Your task to perform on an android device: Show me recent news Image 0: 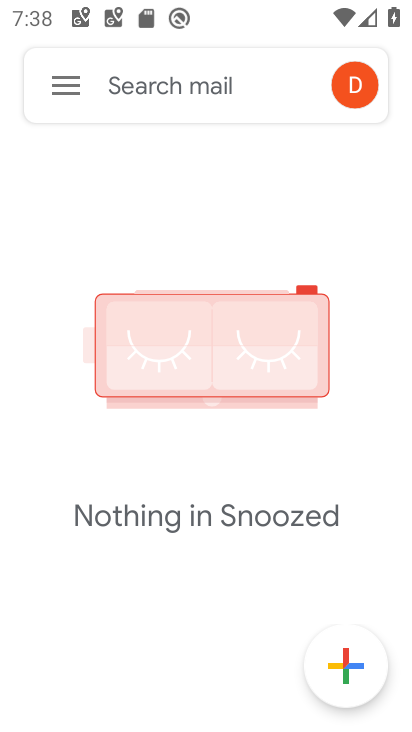
Step 0: press home button
Your task to perform on an android device: Show me recent news Image 1: 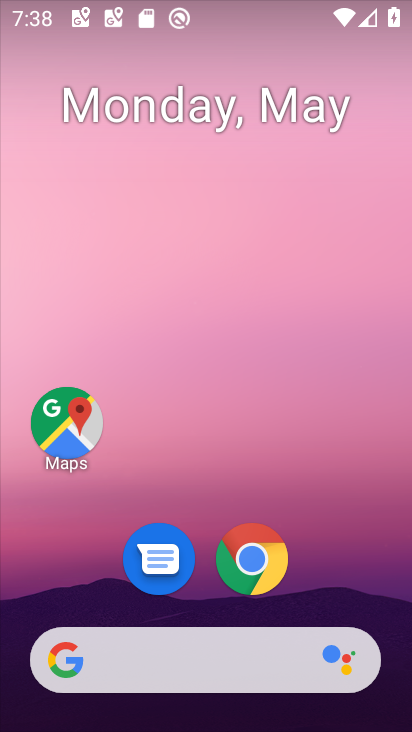
Step 1: click (261, 591)
Your task to perform on an android device: Show me recent news Image 2: 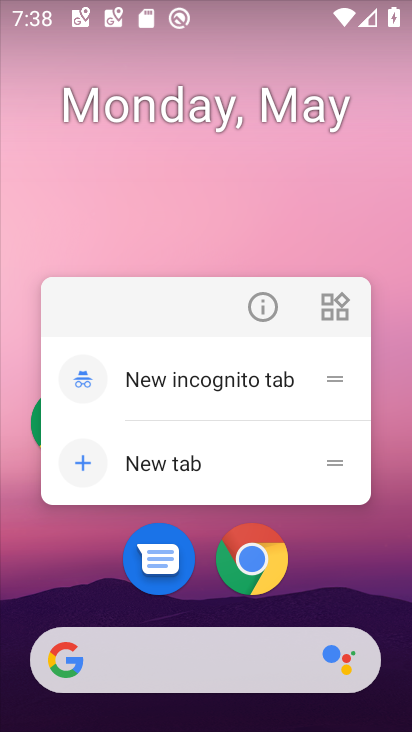
Step 2: click (261, 591)
Your task to perform on an android device: Show me recent news Image 3: 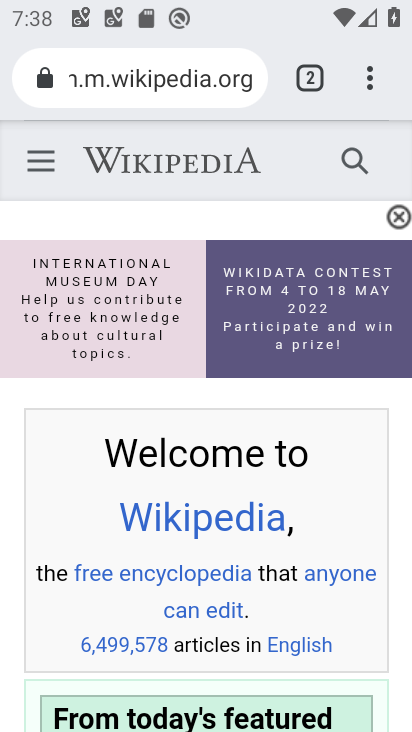
Step 3: press back button
Your task to perform on an android device: Show me recent news Image 4: 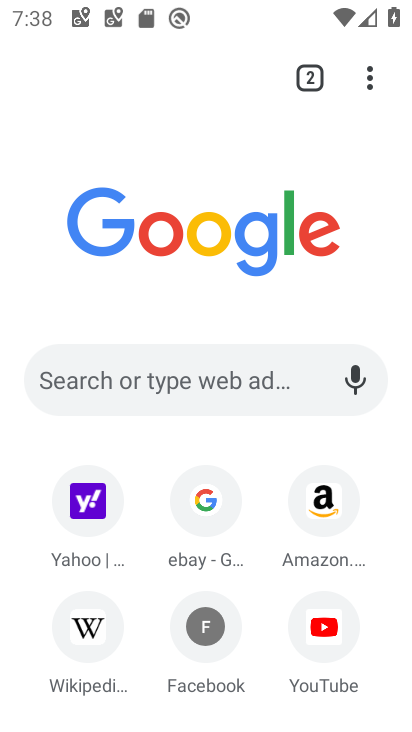
Step 4: drag from (267, 670) to (304, 219)
Your task to perform on an android device: Show me recent news Image 5: 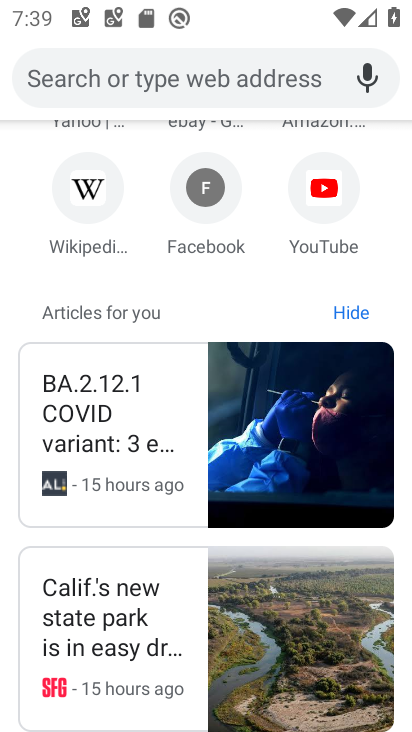
Step 5: click (111, 404)
Your task to perform on an android device: Show me recent news Image 6: 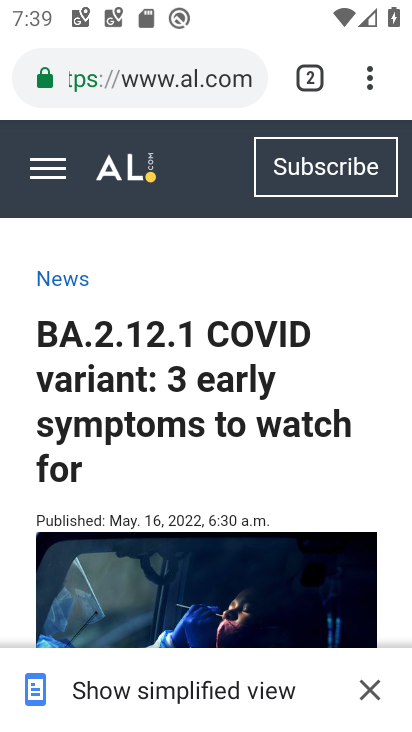
Step 6: task complete